Your task to perform on an android device: turn on location history Image 0: 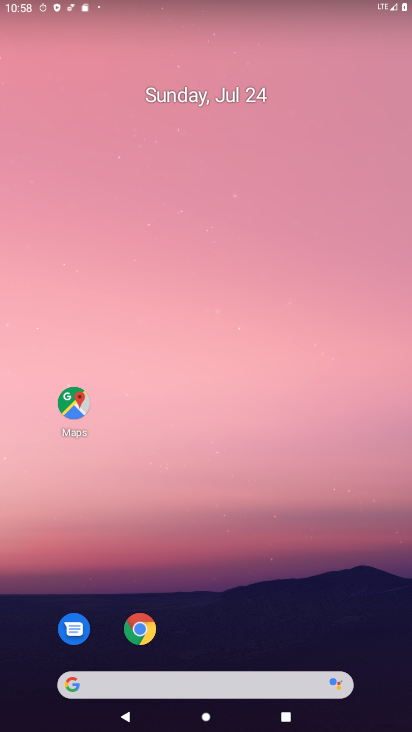
Step 0: click (218, 131)
Your task to perform on an android device: turn on location history Image 1: 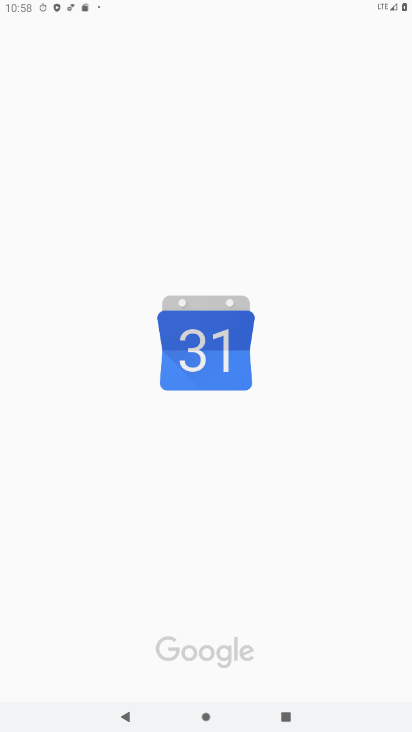
Step 1: drag from (276, 562) to (228, 123)
Your task to perform on an android device: turn on location history Image 2: 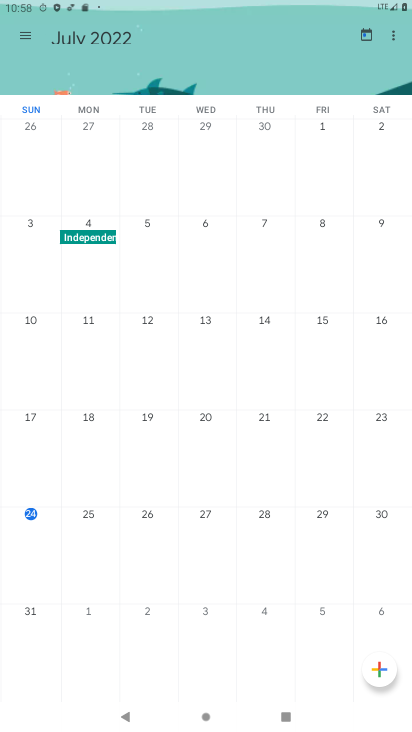
Step 2: press back button
Your task to perform on an android device: turn on location history Image 3: 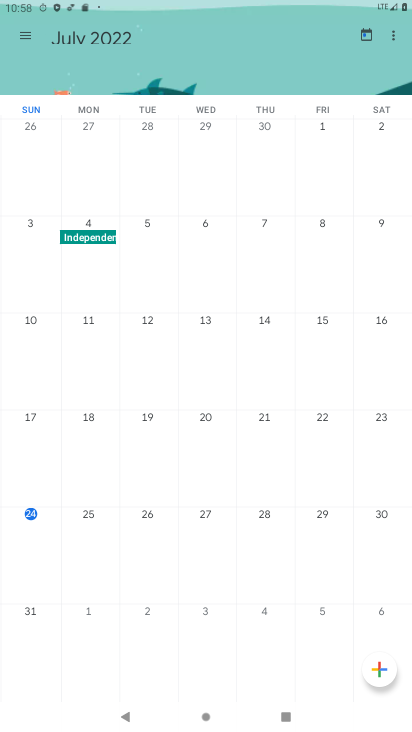
Step 3: press back button
Your task to perform on an android device: turn on location history Image 4: 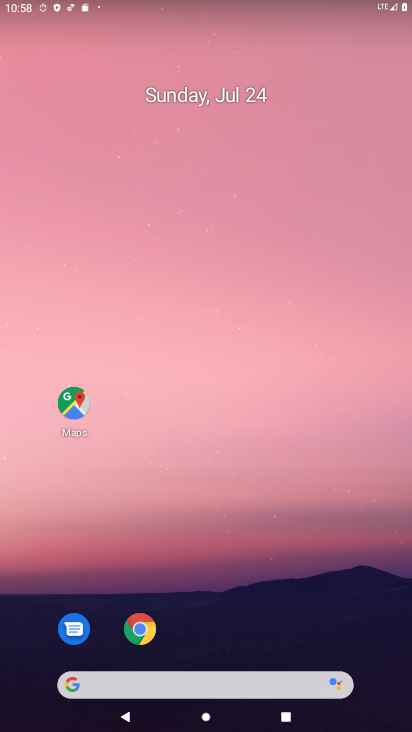
Step 4: press home button
Your task to perform on an android device: turn on location history Image 5: 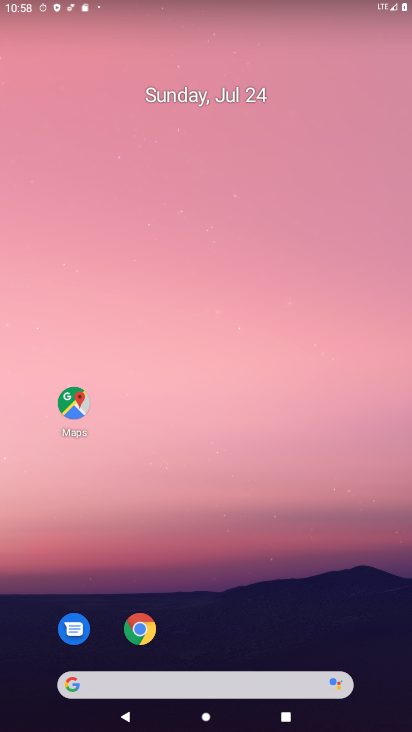
Step 5: drag from (244, 592) to (299, 230)
Your task to perform on an android device: turn on location history Image 6: 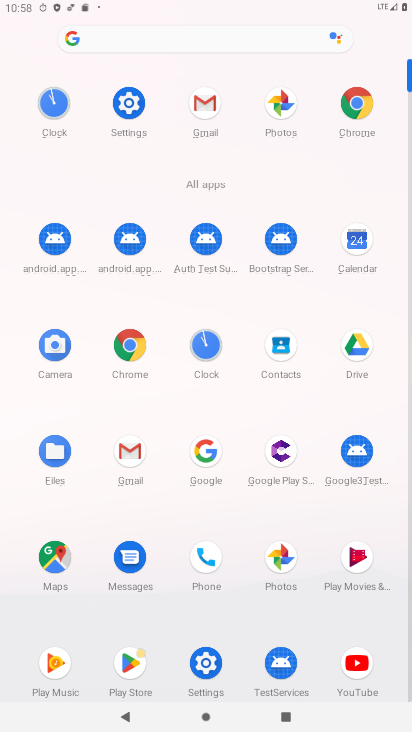
Step 6: click (45, 570)
Your task to perform on an android device: turn on location history Image 7: 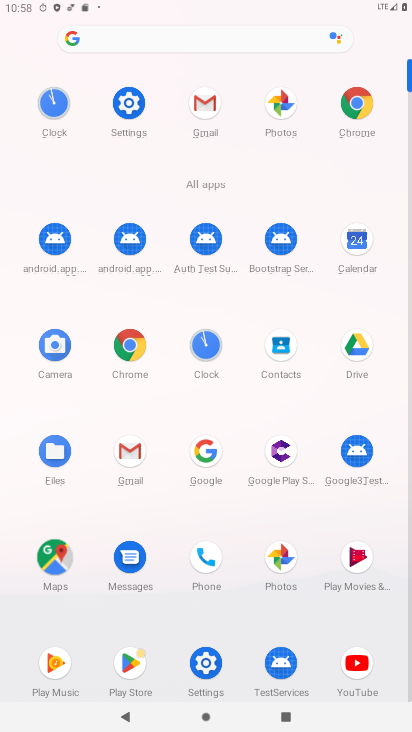
Step 7: click (46, 569)
Your task to perform on an android device: turn on location history Image 8: 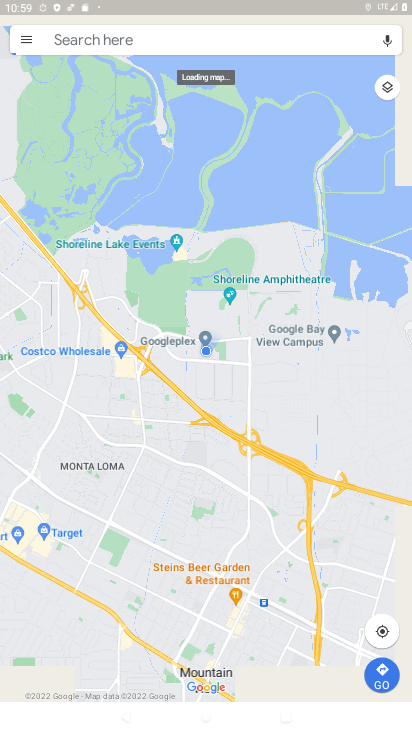
Step 8: click (21, 40)
Your task to perform on an android device: turn on location history Image 9: 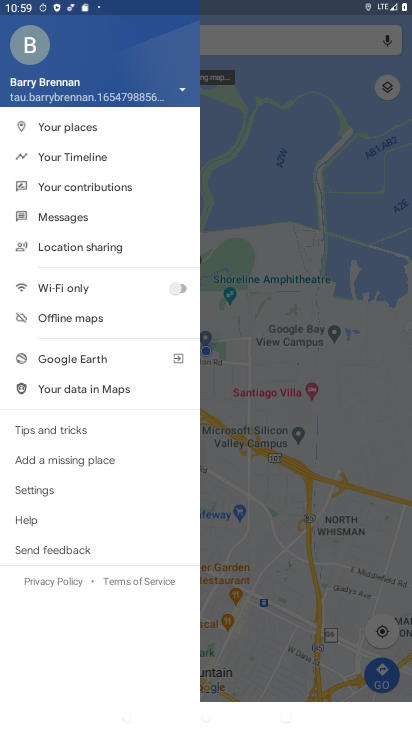
Step 9: click (76, 155)
Your task to perform on an android device: turn on location history Image 10: 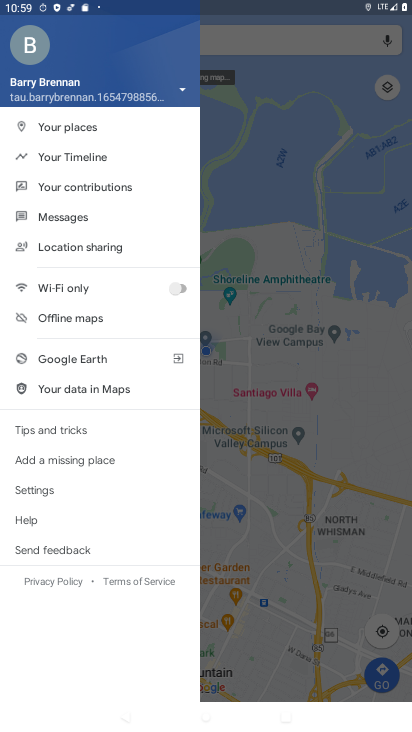
Step 10: click (79, 159)
Your task to perform on an android device: turn on location history Image 11: 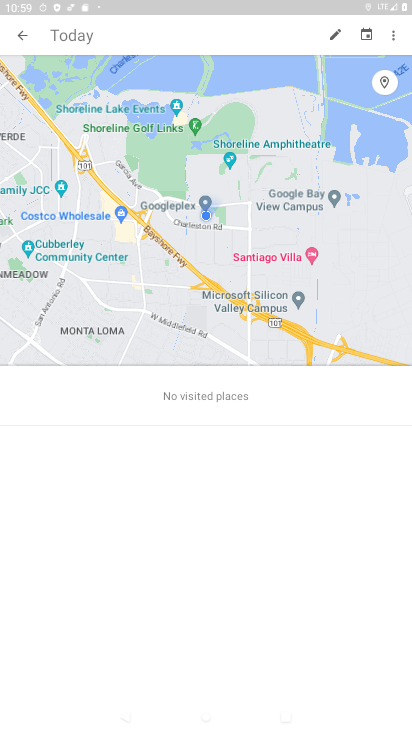
Step 11: click (386, 34)
Your task to perform on an android device: turn on location history Image 12: 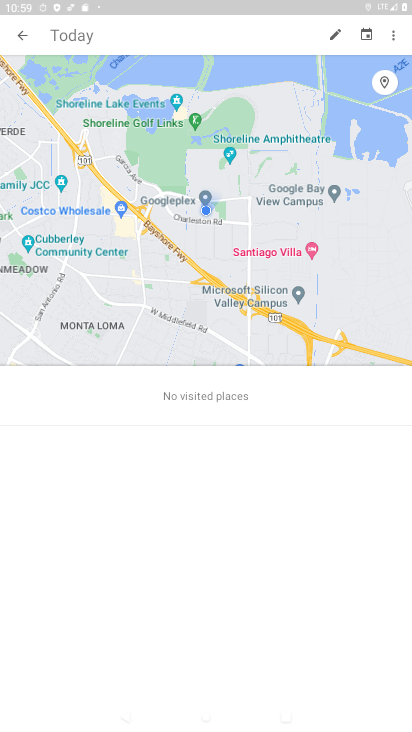
Step 12: click (392, 39)
Your task to perform on an android device: turn on location history Image 13: 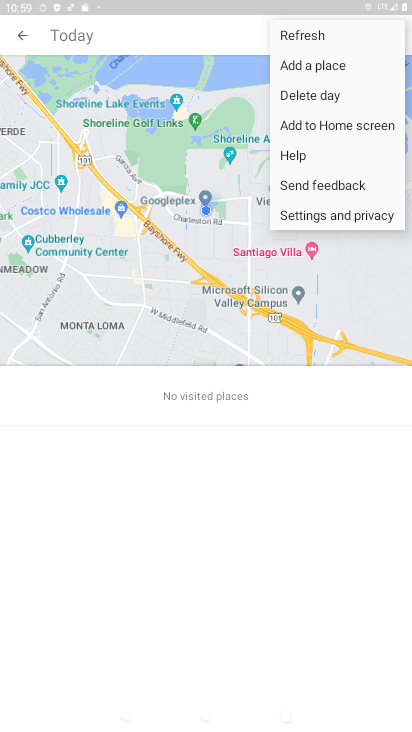
Step 13: click (308, 222)
Your task to perform on an android device: turn on location history Image 14: 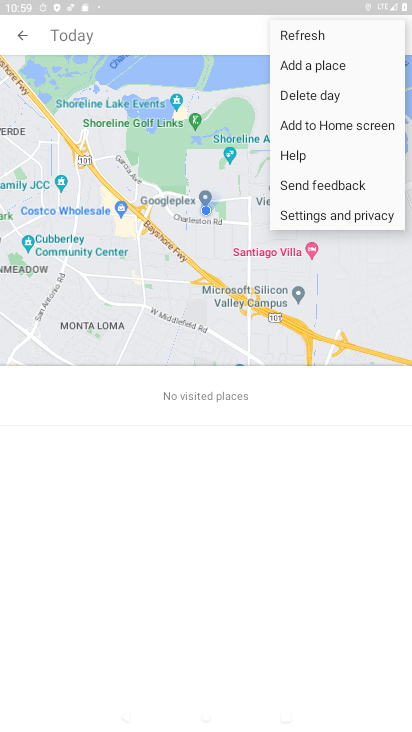
Step 14: click (308, 222)
Your task to perform on an android device: turn on location history Image 15: 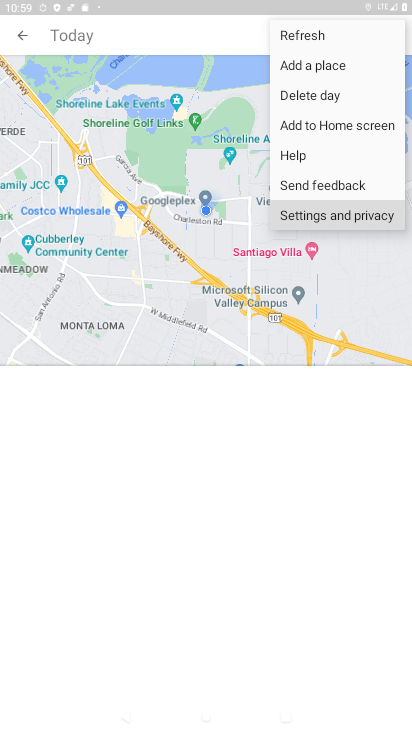
Step 15: click (308, 222)
Your task to perform on an android device: turn on location history Image 16: 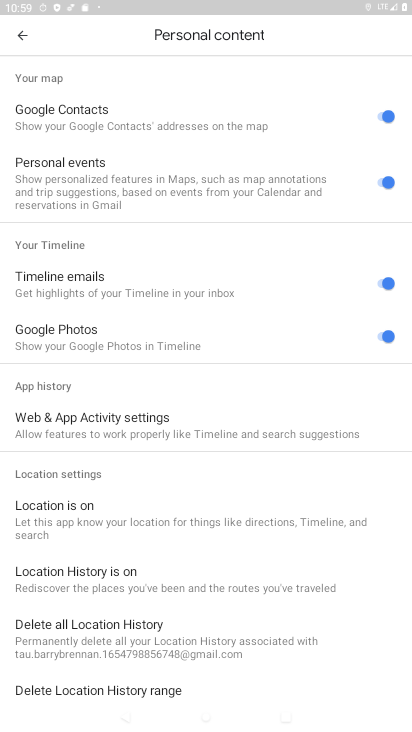
Step 16: click (80, 576)
Your task to perform on an android device: turn on location history Image 17: 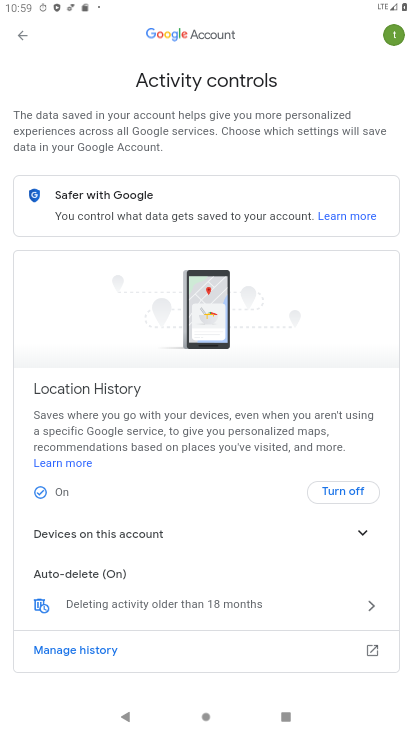
Step 17: click (336, 485)
Your task to perform on an android device: turn on location history Image 18: 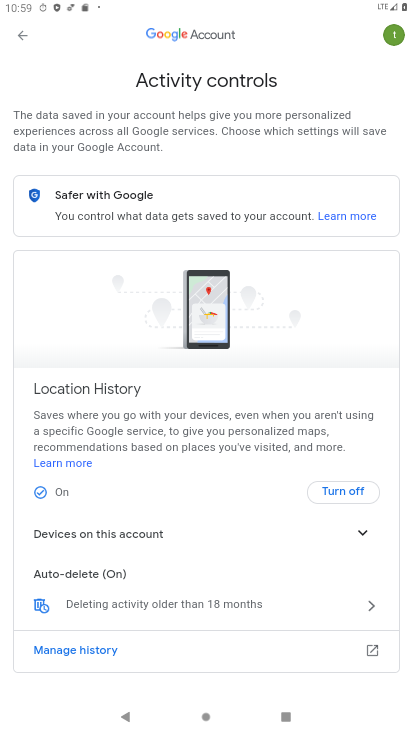
Step 18: click (342, 487)
Your task to perform on an android device: turn on location history Image 19: 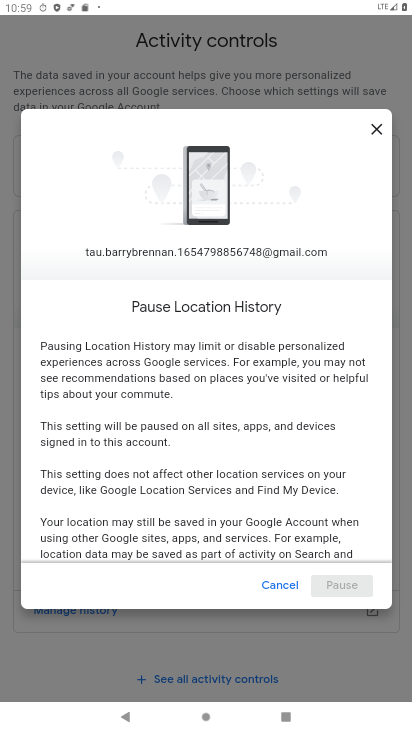
Step 19: click (288, 590)
Your task to perform on an android device: turn on location history Image 20: 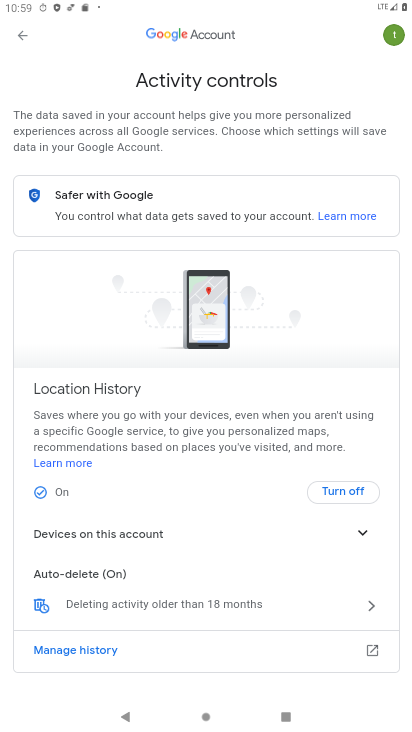
Step 20: click (42, 492)
Your task to perform on an android device: turn on location history Image 21: 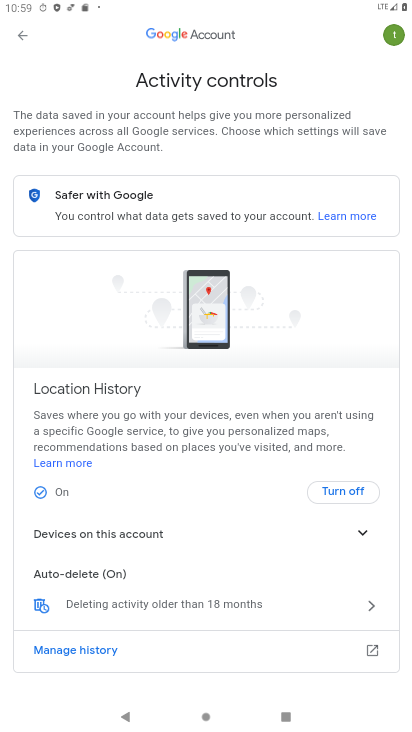
Step 21: click (41, 490)
Your task to perform on an android device: turn on location history Image 22: 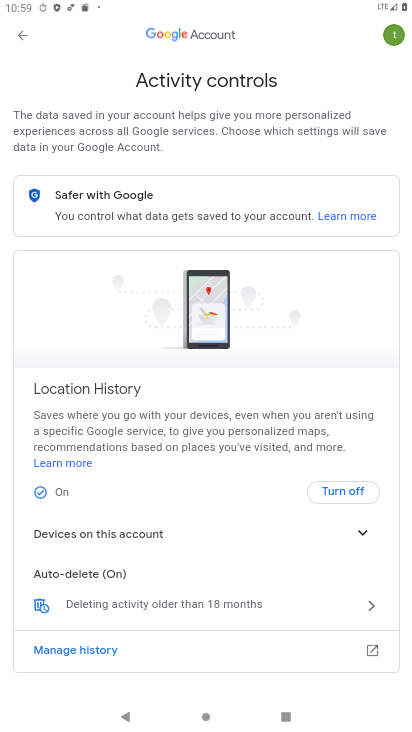
Step 22: task complete